Your task to perform on an android device: check data usage Image 0: 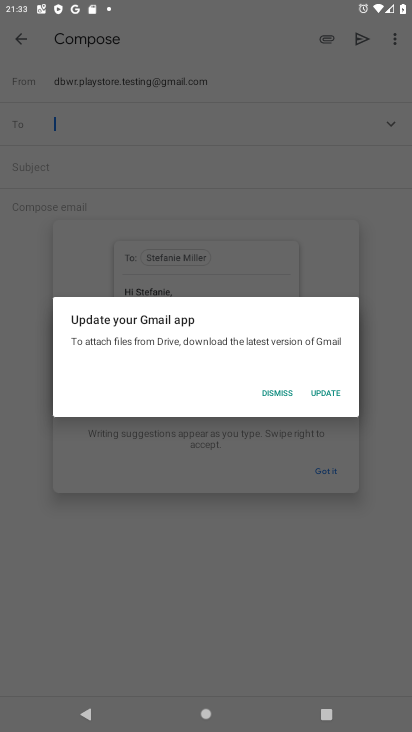
Step 0: press home button
Your task to perform on an android device: check data usage Image 1: 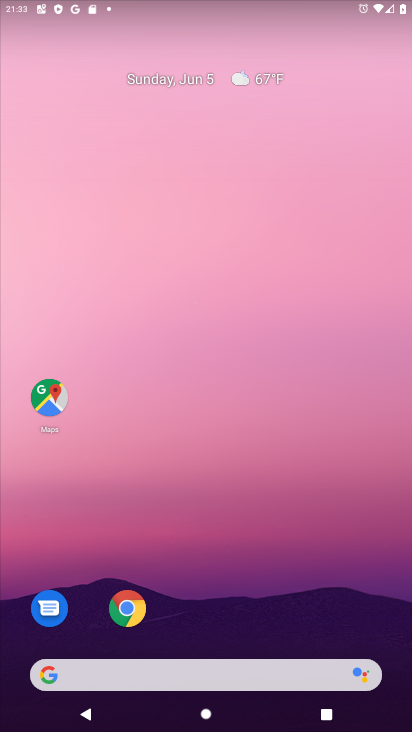
Step 1: drag from (2, 681) to (139, 453)
Your task to perform on an android device: check data usage Image 2: 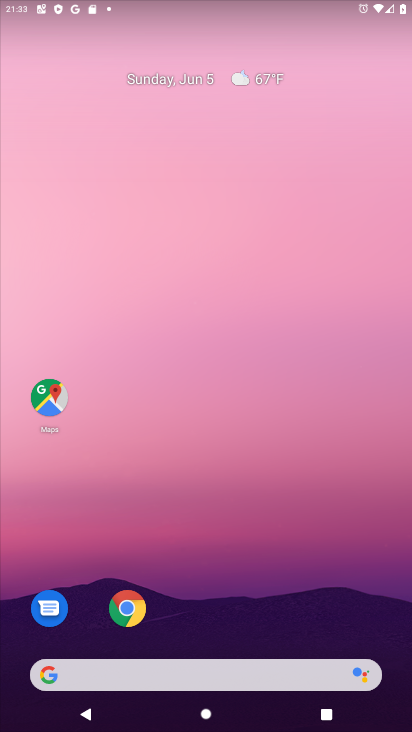
Step 2: drag from (18, 655) to (171, 364)
Your task to perform on an android device: check data usage Image 3: 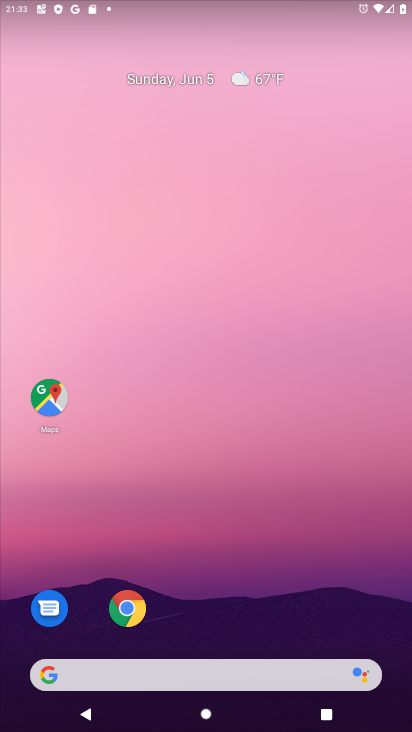
Step 3: drag from (48, 554) to (199, 290)
Your task to perform on an android device: check data usage Image 4: 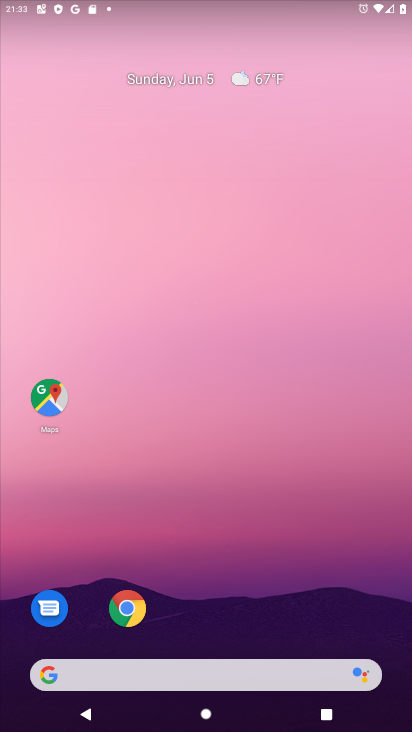
Step 4: drag from (52, 555) to (262, 157)
Your task to perform on an android device: check data usage Image 5: 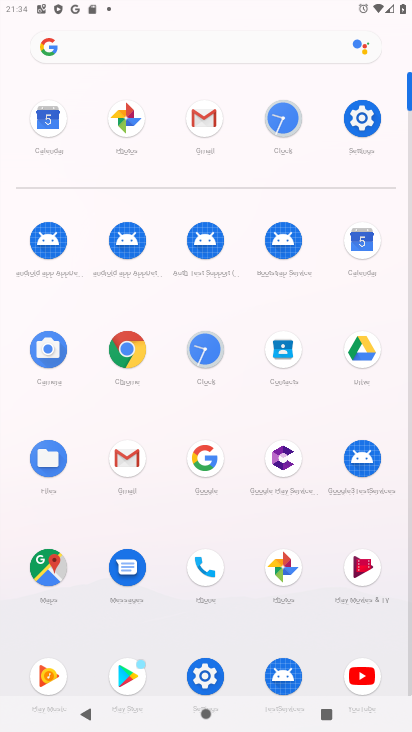
Step 5: click (358, 130)
Your task to perform on an android device: check data usage Image 6: 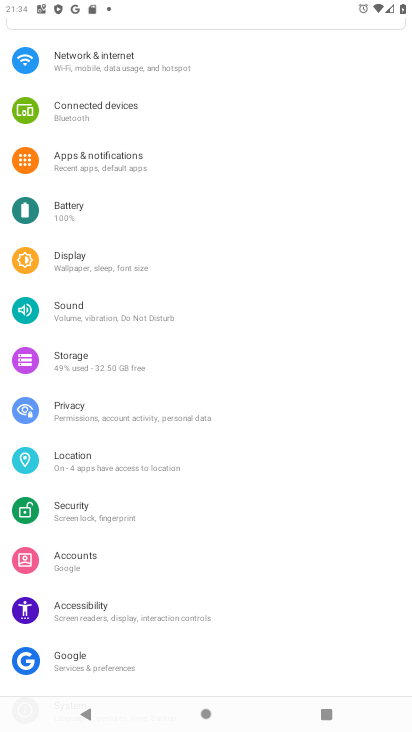
Step 6: click (143, 73)
Your task to perform on an android device: check data usage Image 7: 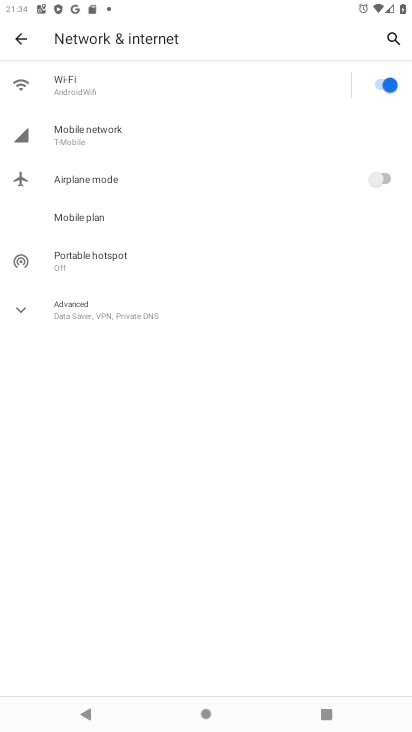
Step 7: click (142, 132)
Your task to perform on an android device: check data usage Image 8: 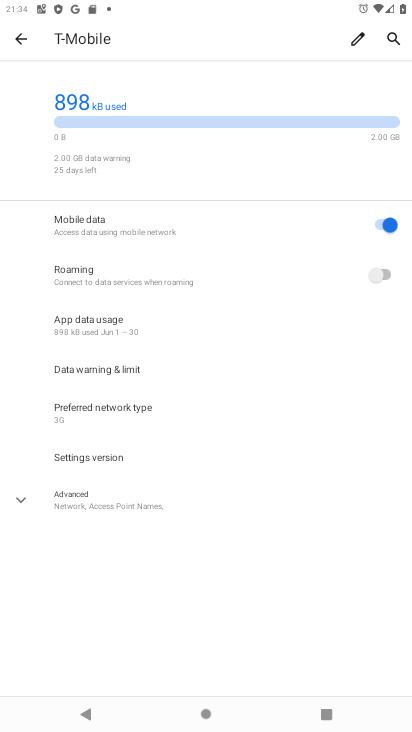
Step 8: task complete